Your task to perform on an android device: Go to settings Image 0: 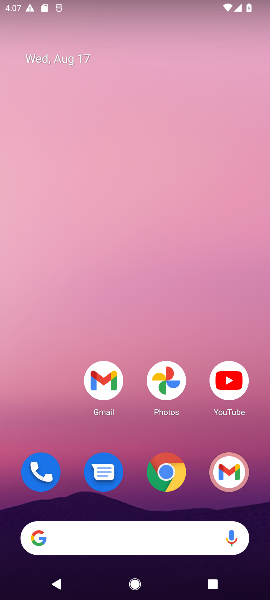
Step 0: drag from (119, 455) to (139, 93)
Your task to perform on an android device: Go to settings Image 1: 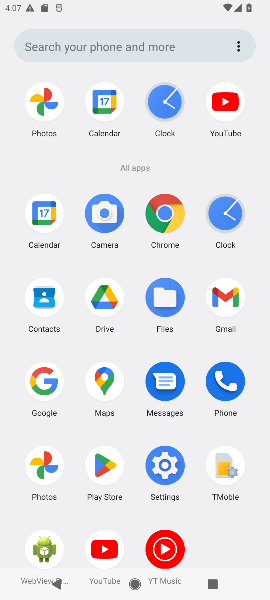
Step 1: click (168, 469)
Your task to perform on an android device: Go to settings Image 2: 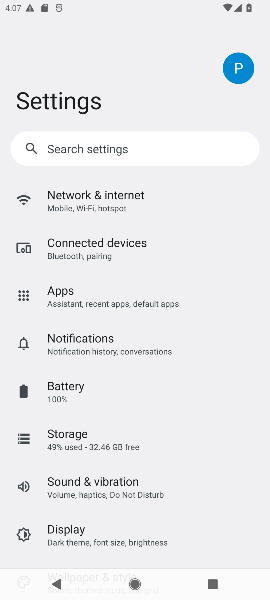
Step 2: task complete